Your task to perform on an android device: Go to ESPN.com Image 0: 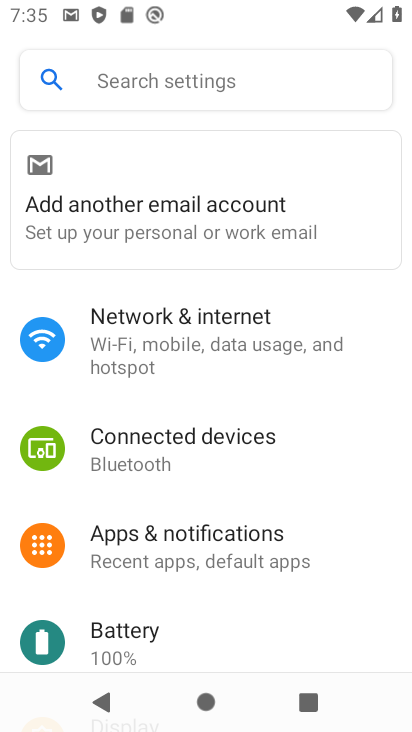
Step 0: drag from (196, 567) to (159, 236)
Your task to perform on an android device: Go to ESPN.com Image 1: 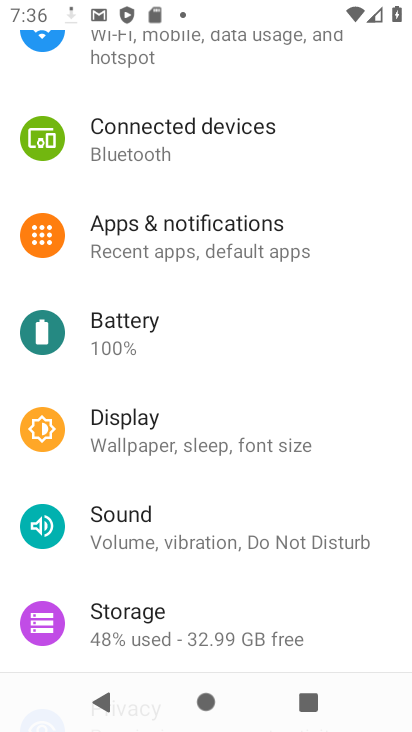
Step 1: press home button
Your task to perform on an android device: Go to ESPN.com Image 2: 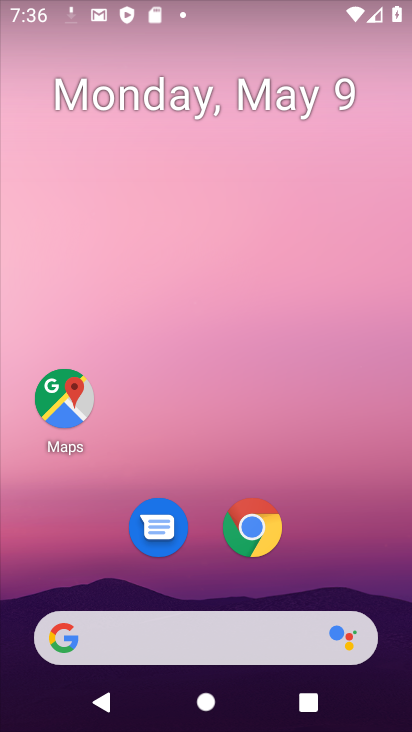
Step 2: drag from (214, 530) to (217, 7)
Your task to perform on an android device: Go to ESPN.com Image 3: 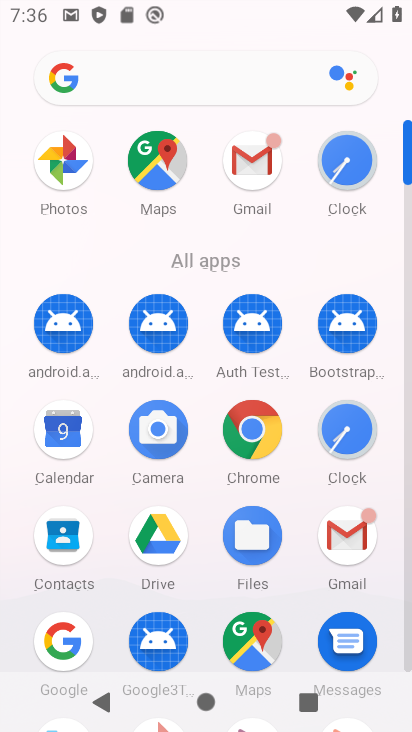
Step 3: click (251, 442)
Your task to perform on an android device: Go to ESPN.com Image 4: 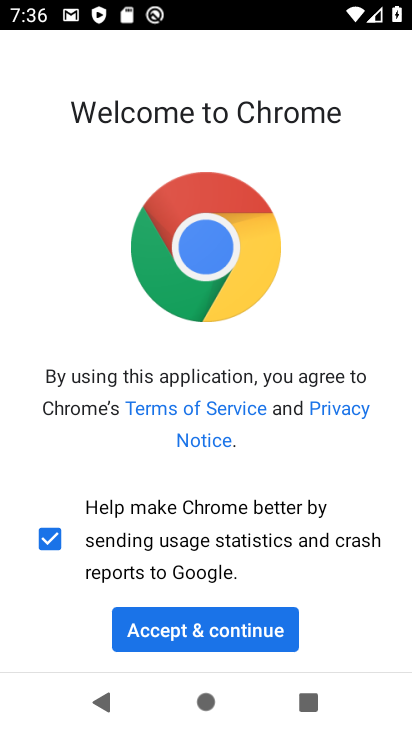
Step 4: click (211, 628)
Your task to perform on an android device: Go to ESPN.com Image 5: 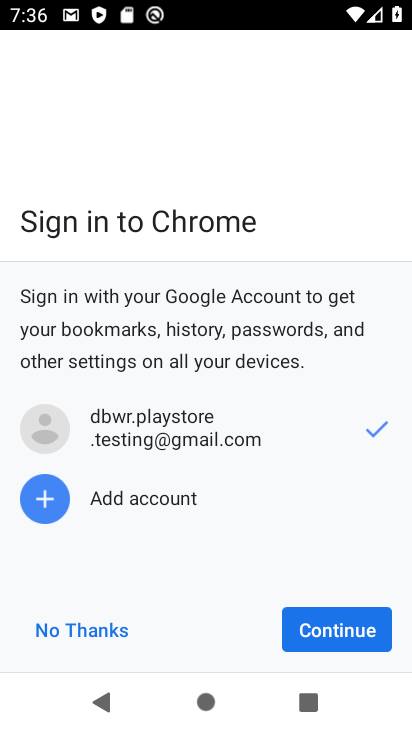
Step 5: click (321, 626)
Your task to perform on an android device: Go to ESPN.com Image 6: 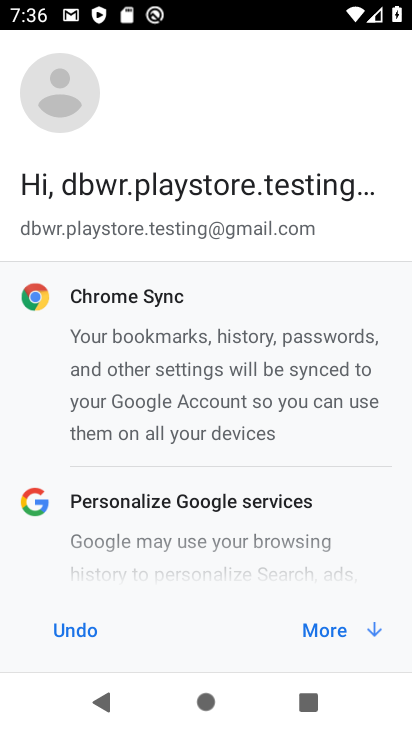
Step 6: click (317, 631)
Your task to perform on an android device: Go to ESPN.com Image 7: 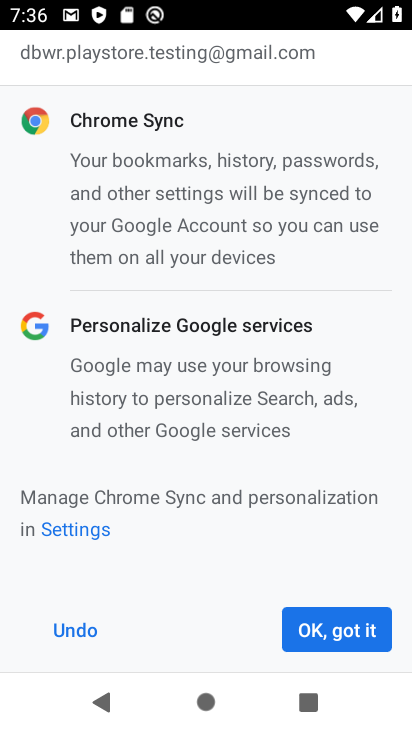
Step 7: click (309, 627)
Your task to perform on an android device: Go to ESPN.com Image 8: 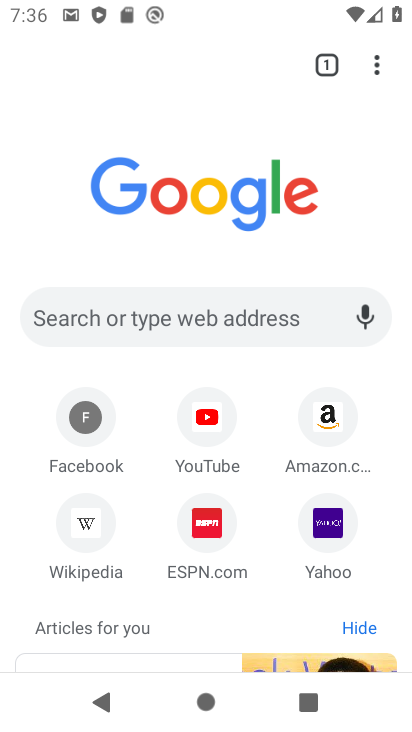
Step 8: click (225, 555)
Your task to perform on an android device: Go to ESPN.com Image 9: 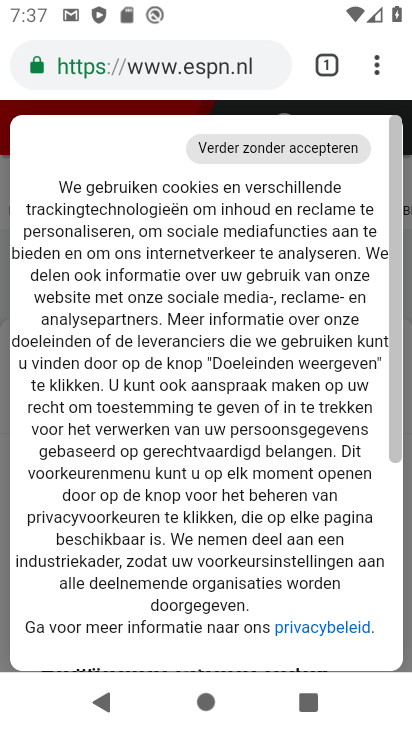
Step 9: task complete